Your task to perform on an android device: check android version Image 0: 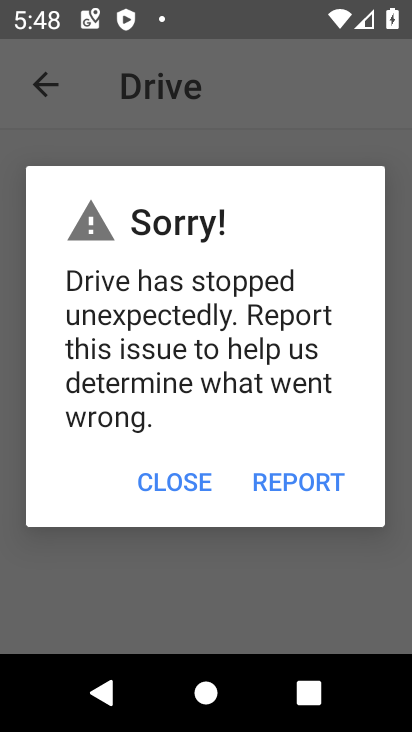
Step 0: press back button
Your task to perform on an android device: check android version Image 1: 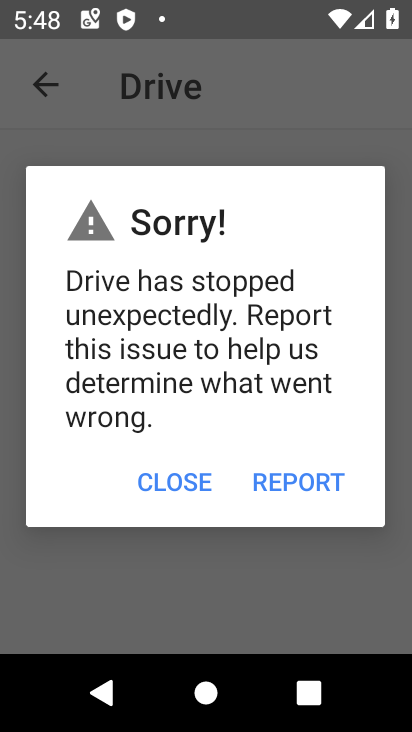
Step 1: press home button
Your task to perform on an android device: check android version Image 2: 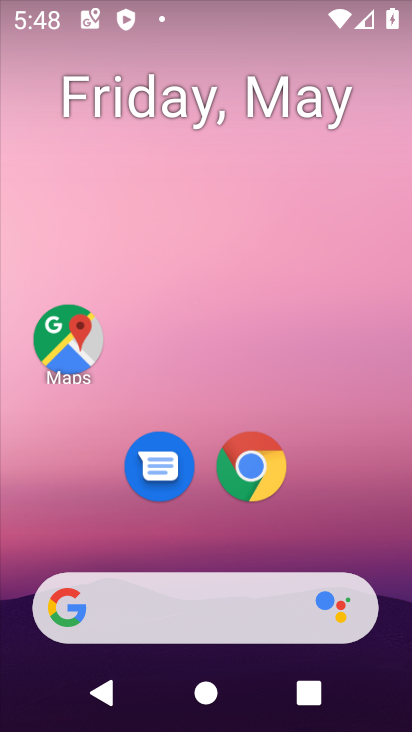
Step 2: drag from (340, 525) to (265, 48)
Your task to perform on an android device: check android version Image 3: 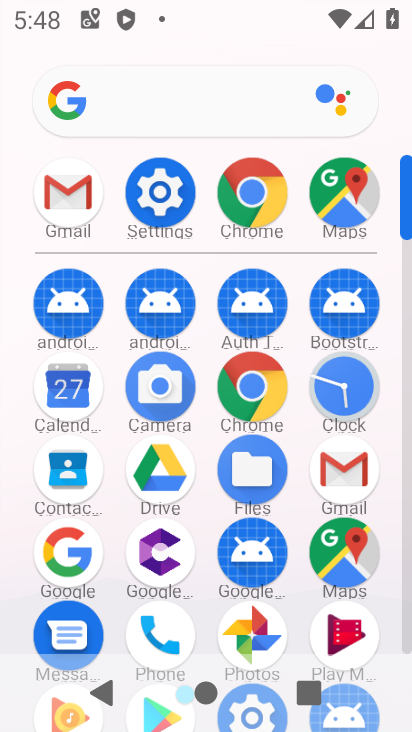
Step 3: drag from (21, 553) to (16, 209)
Your task to perform on an android device: check android version Image 4: 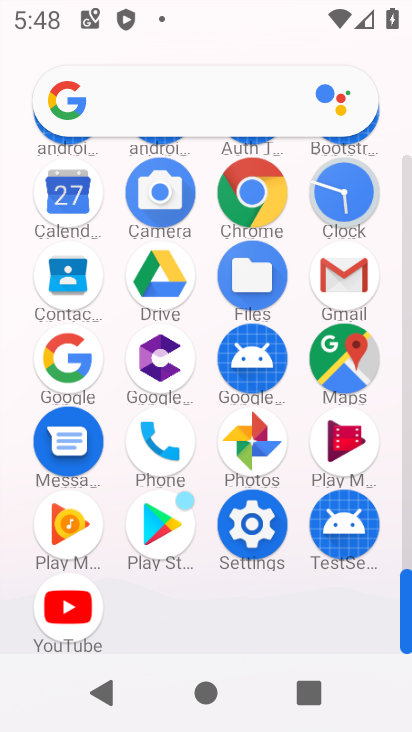
Step 4: click (251, 521)
Your task to perform on an android device: check android version Image 5: 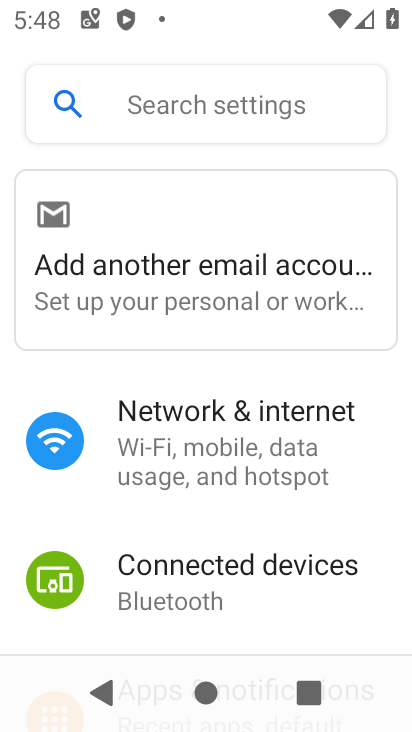
Step 5: drag from (331, 585) to (296, 209)
Your task to perform on an android device: check android version Image 6: 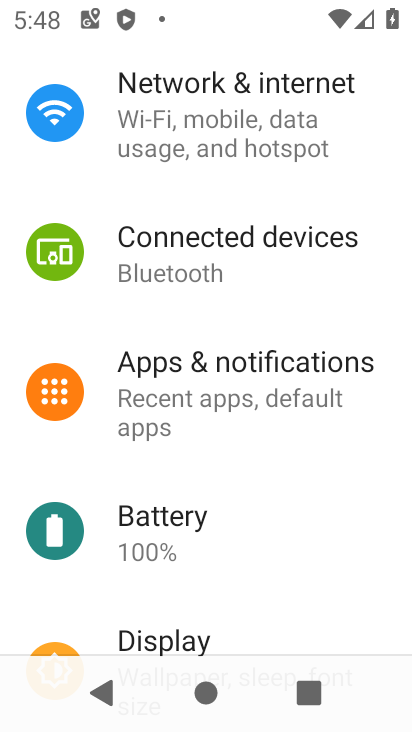
Step 6: drag from (296, 561) to (256, 142)
Your task to perform on an android device: check android version Image 7: 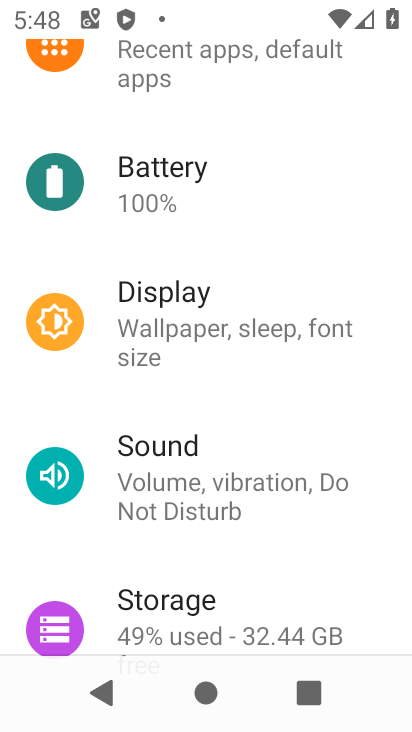
Step 7: drag from (245, 286) to (250, 83)
Your task to perform on an android device: check android version Image 8: 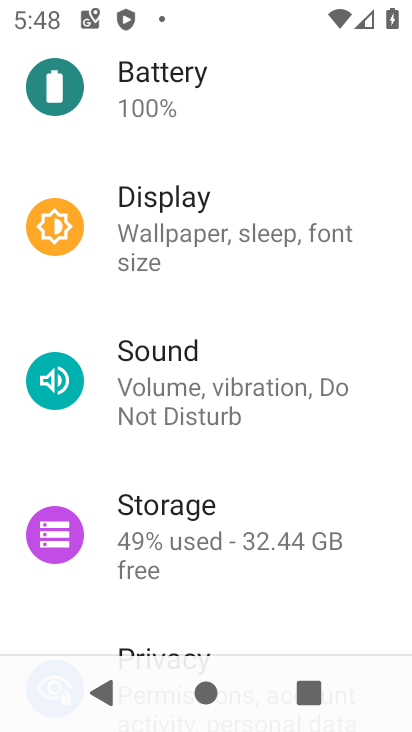
Step 8: drag from (256, 543) to (260, 139)
Your task to perform on an android device: check android version Image 9: 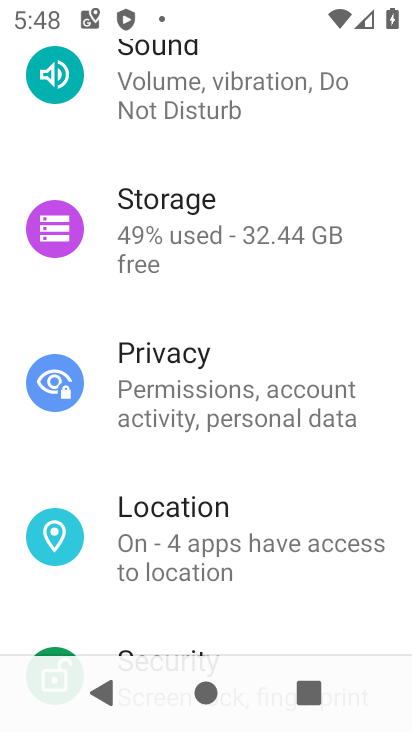
Step 9: drag from (268, 614) to (239, 89)
Your task to perform on an android device: check android version Image 10: 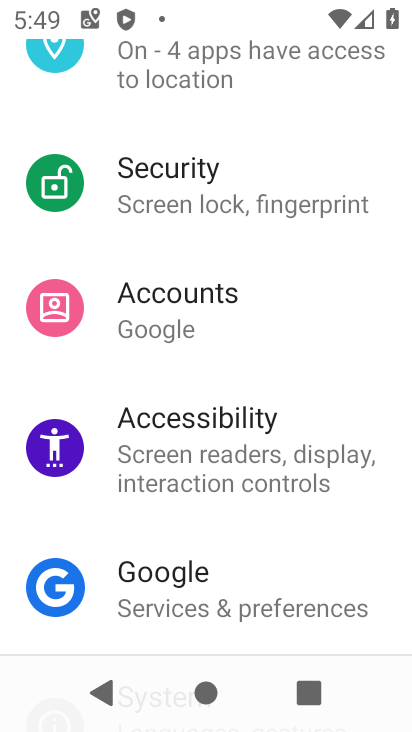
Step 10: drag from (238, 557) to (237, 120)
Your task to perform on an android device: check android version Image 11: 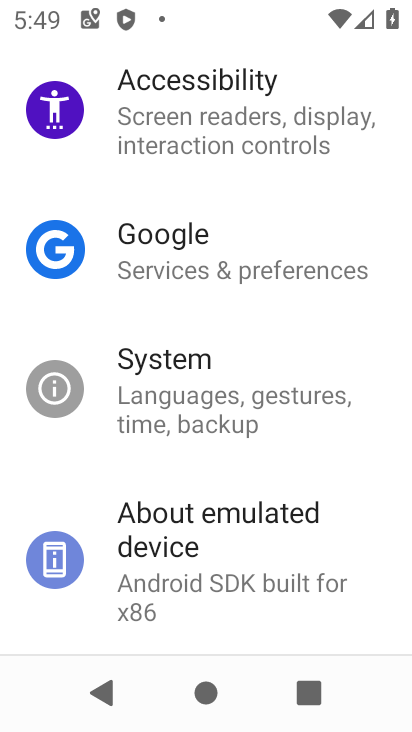
Step 11: drag from (260, 561) to (261, 102)
Your task to perform on an android device: check android version Image 12: 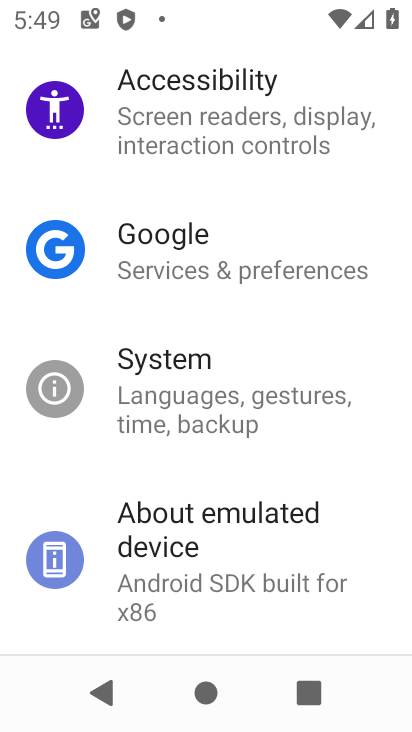
Step 12: click (236, 544)
Your task to perform on an android device: check android version Image 13: 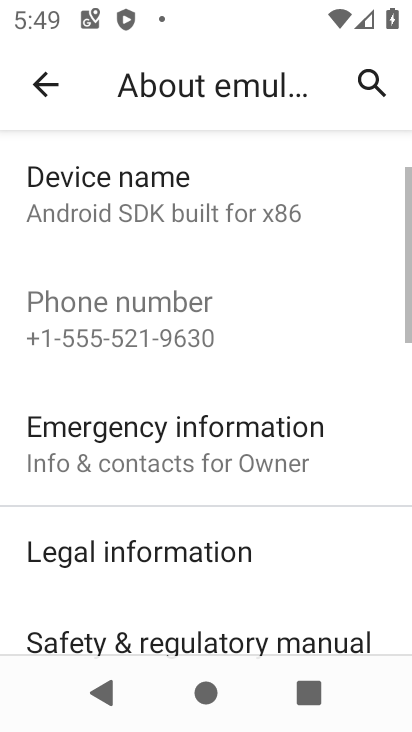
Step 13: task complete